Your task to perform on an android device: Open maps Image 0: 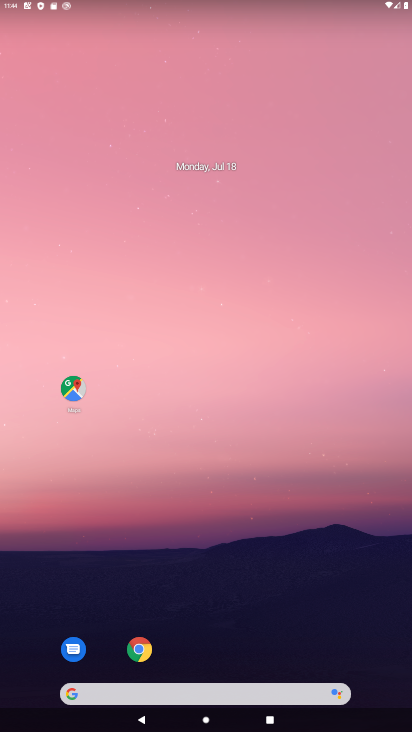
Step 0: click (74, 385)
Your task to perform on an android device: Open maps Image 1: 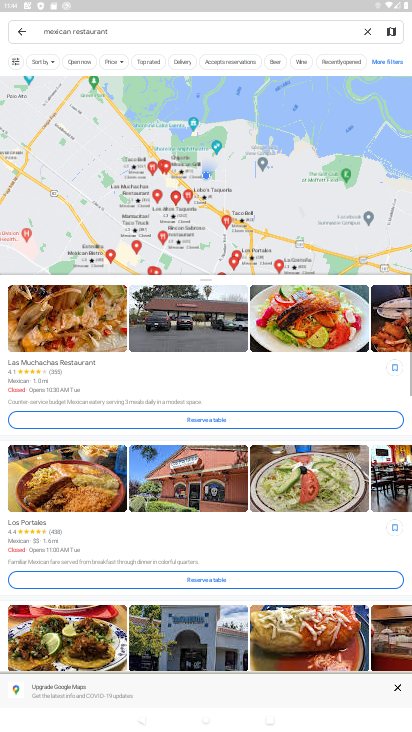
Step 1: click (19, 29)
Your task to perform on an android device: Open maps Image 2: 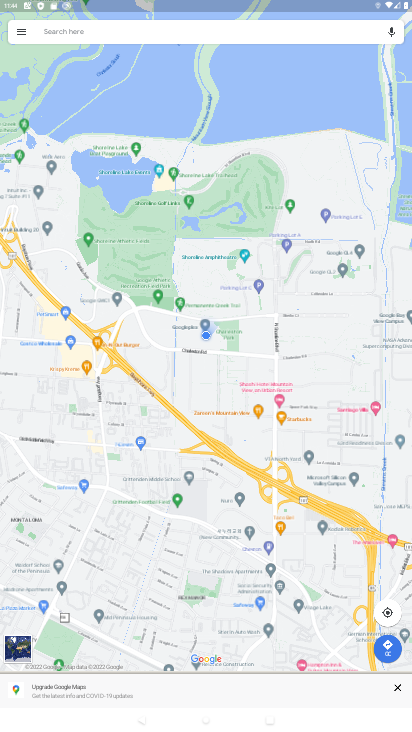
Step 2: task complete